Your task to perform on an android device: Show the shopping cart on target. Image 0: 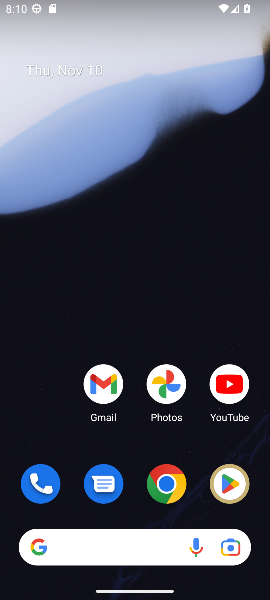
Step 0: click (174, 483)
Your task to perform on an android device: Show the shopping cart on target. Image 1: 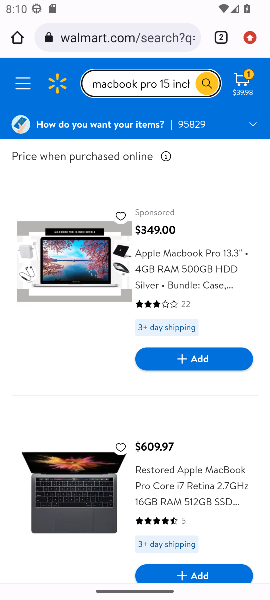
Step 1: click (128, 44)
Your task to perform on an android device: Show the shopping cart on target. Image 2: 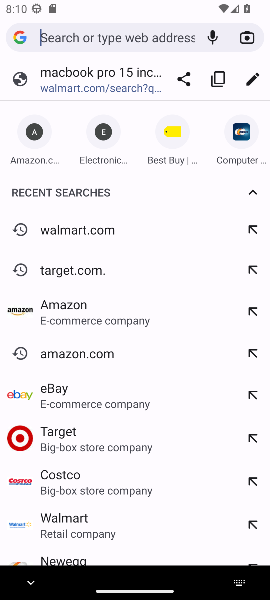
Step 2: click (66, 272)
Your task to perform on an android device: Show the shopping cart on target. Image 3: 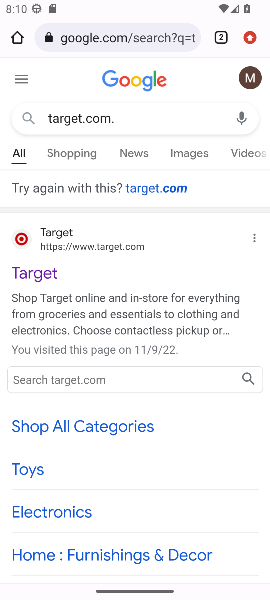
Step 3: click (66, 272)
Your task to perform on an android device: Show the shopping cart on target. Image 4: 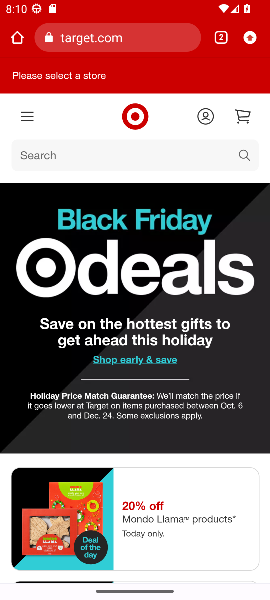
Step 4: click (247, 114)
Your task to perform on an android device: Show the shopping cart on target. Image 5: 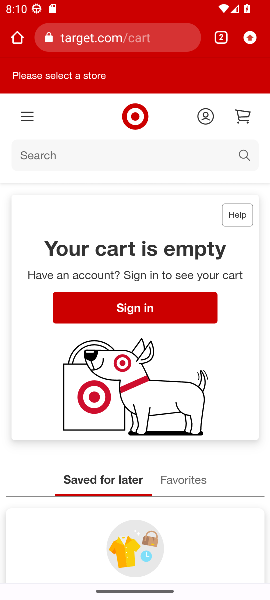
Step 5: task complete